Your task to perform on an android device: Go to eBay Image 0: 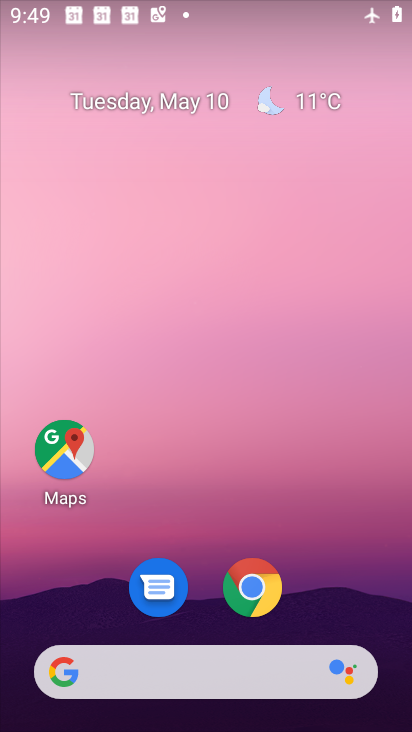
Step 0: drag from (369, 610) to (353, 77)
Your task to perform on an android device: Go to eBay Image 1: 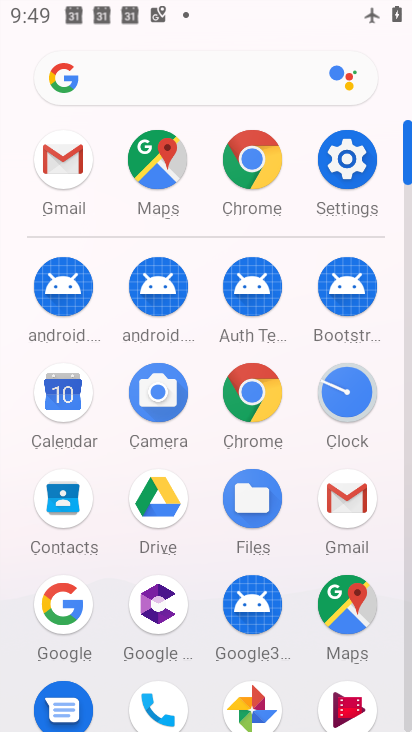
Step 1: click (259, 172)
Your task to perform on an android device: Go to eBay Image 2: 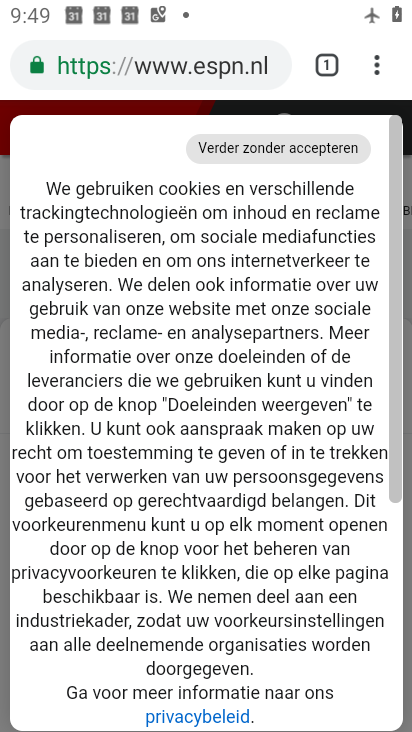
Step 2: drag from (281, 570) to (308, 126)
Your task to perform on an android device: Go to eBay Image 3: 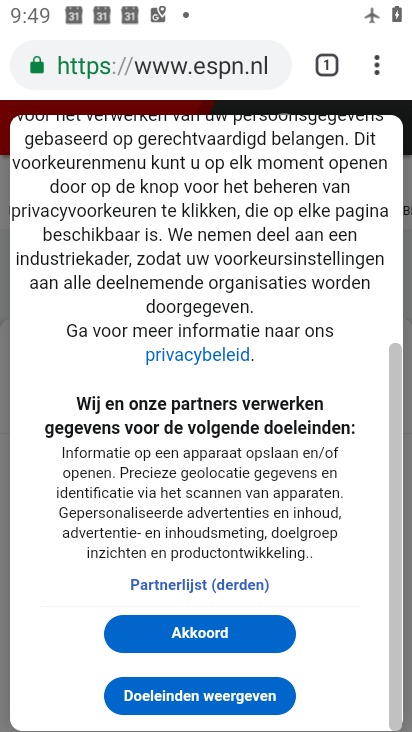
Step 3: click (242, 631)
Your task to perform on an android device: Go to eBay Image 4: 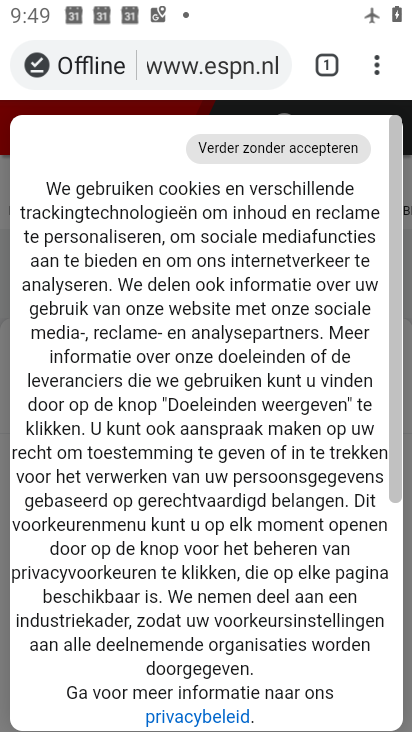
Step 4: drag from (265, 659) to (243, 300)
Your task to perform on an android device: Go to eBay Image 5: 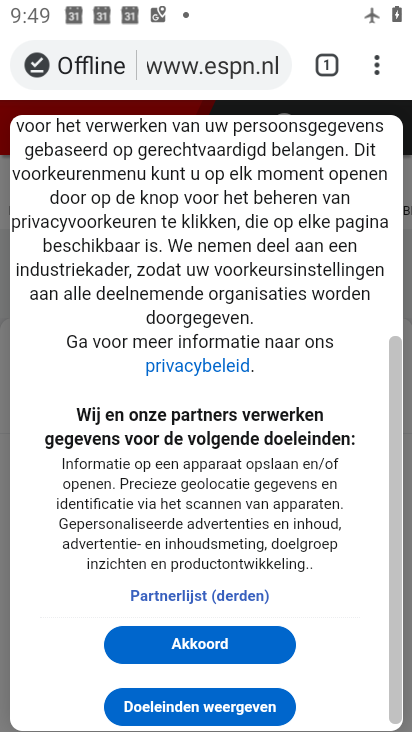
Step 5: click (258, 646)
Your task to perform on an android device: Go to eBay Image 6: 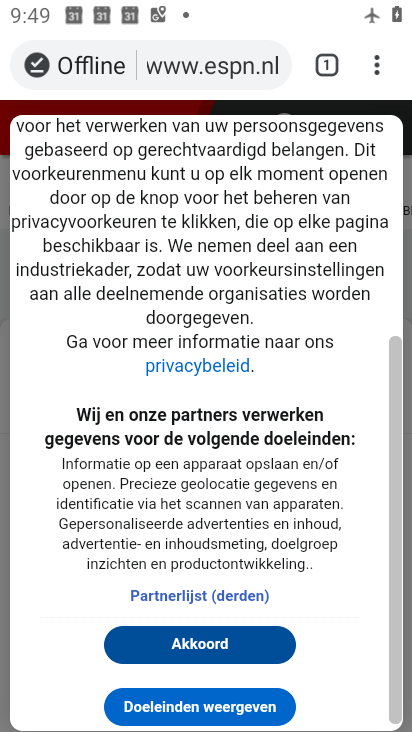
Step 6: task complete